Your task to perform on an android device: toggle show notifications on the lock screen Image 0: 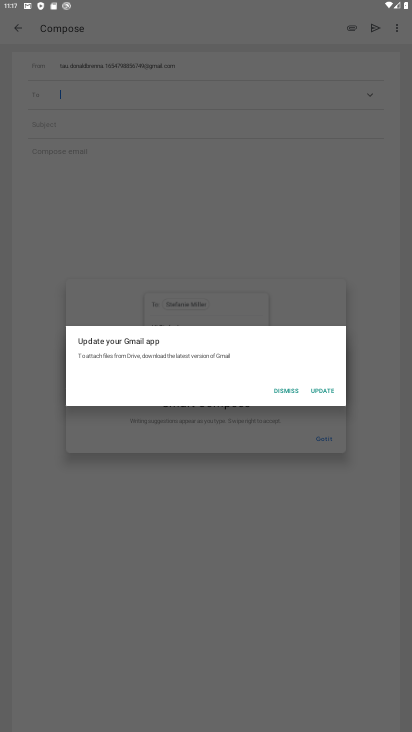
Step 0: press home button
Your task to perform on an android device: toggle show notifications on the lock screen Image 1: 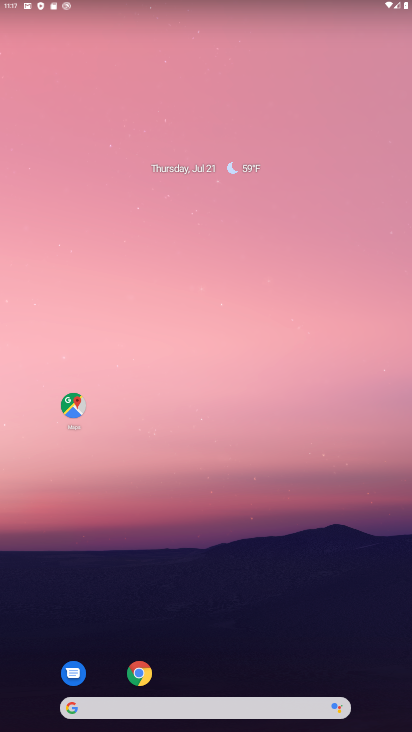
Step 1: drag from (231, 595) to (184, 42)
Your task to perform on an android device: toggle show notifications on the lock screen Image 2: 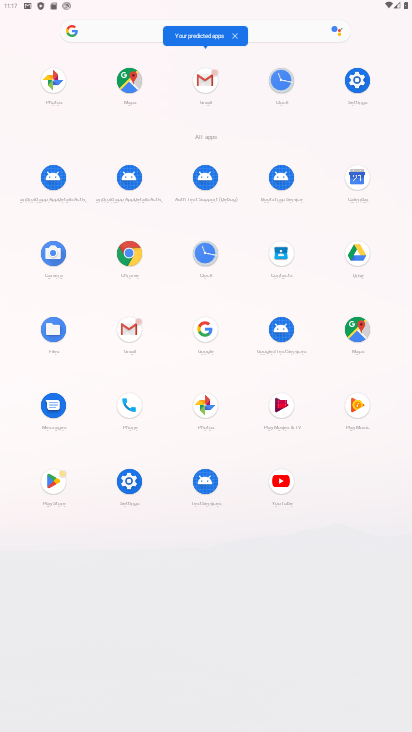
Step 2: click (351, 76)
Your task to perform on an android device: toggle show notifications on the lock screen Image 3: 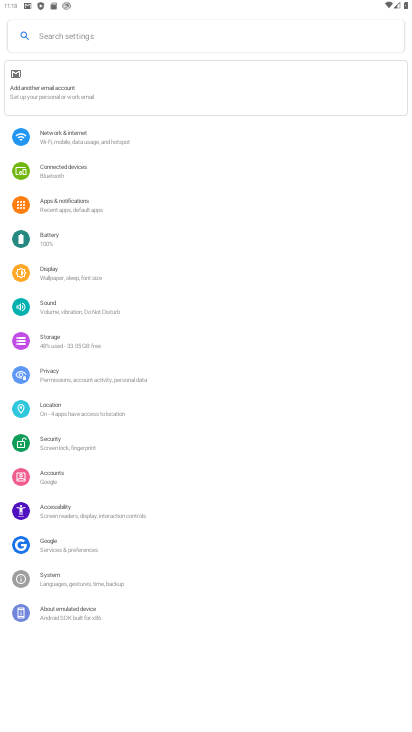
Step 3: click (71, 201)
Your task to perform on an android device: toggle show notifications on the lock screen Image 4: 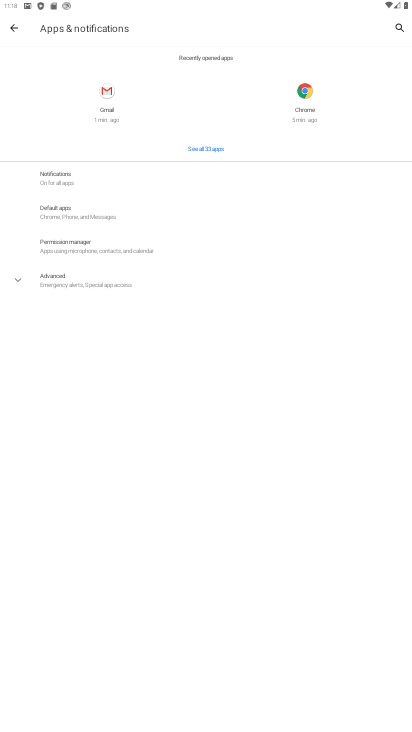
Step 4: click (57, 172)
Your task to perform on an android device: toggle show notifications on the lock screen Image 5: 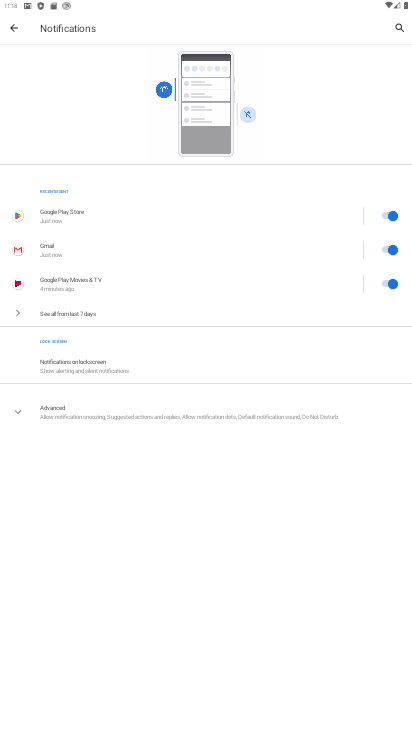
Step 5: click (61, 359)
Your task to perform on an android device: toggle show notifications on the lock screen Image 6: 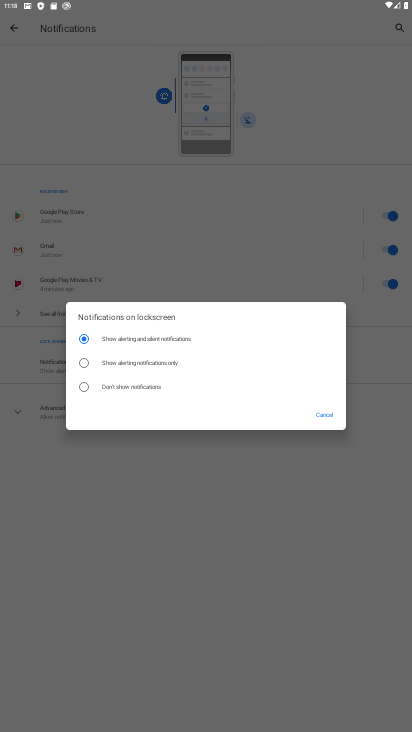
Step 6: click (84, 388)
Your task to perform on an android device: toggle show notifications on the lock screen Image 7: 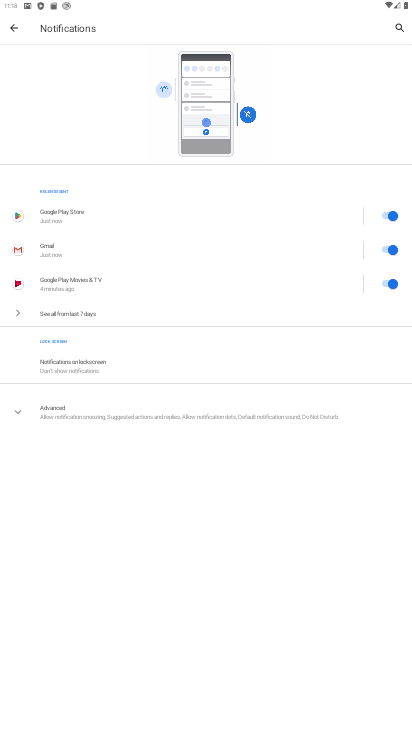
Step 7: task complete